Your task to perform on an android device: What is the average speed of a car? Image 0: 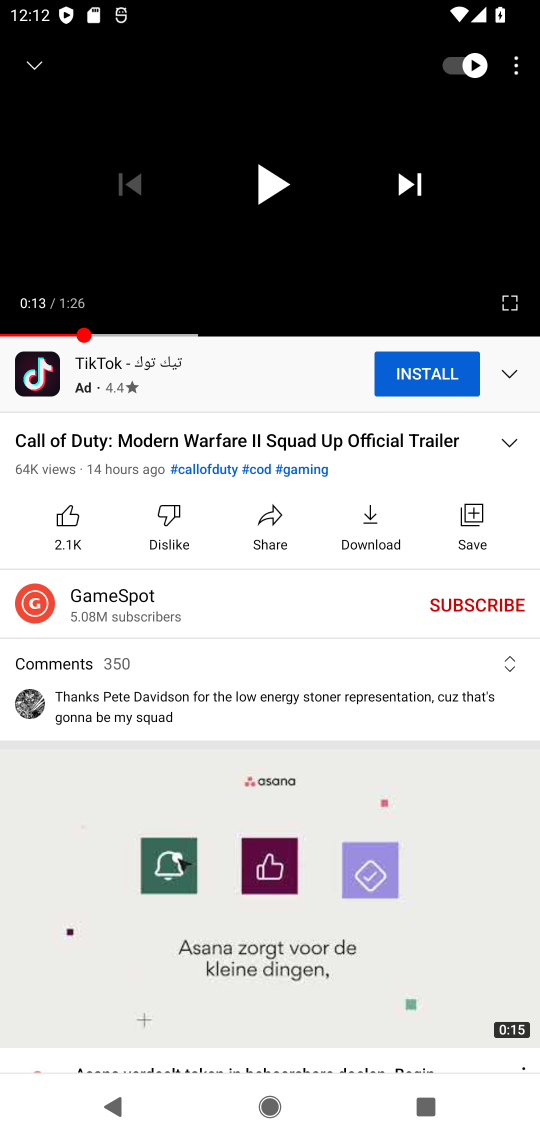
Step 0: press home button
Your task to perform on an android device: What is the average speed of a car? Image 1: 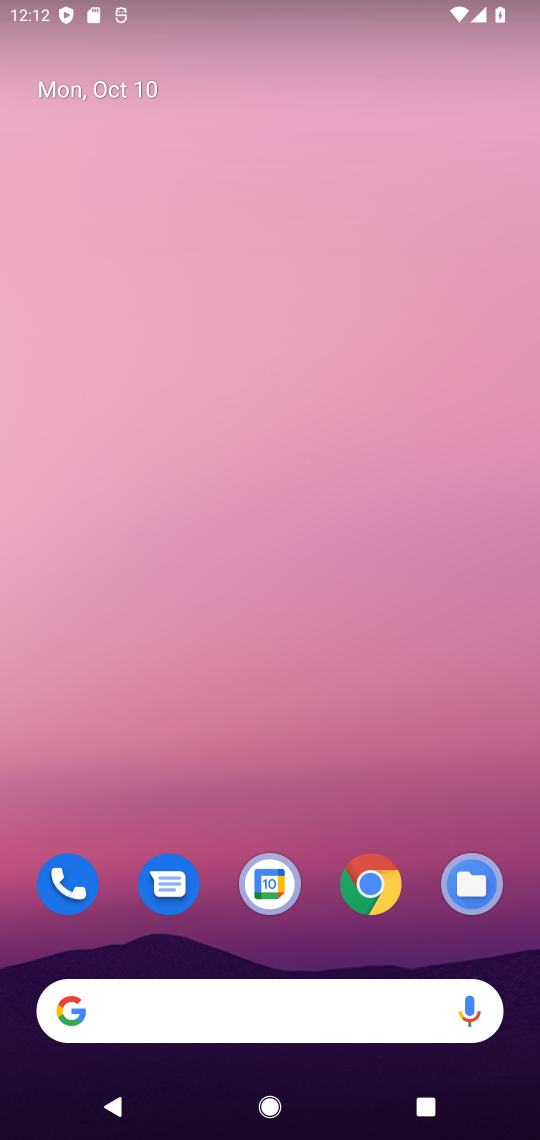
Step 1: click (382, 885)
Your task to perform on an android device: What is the average speed of a car? Image 2: 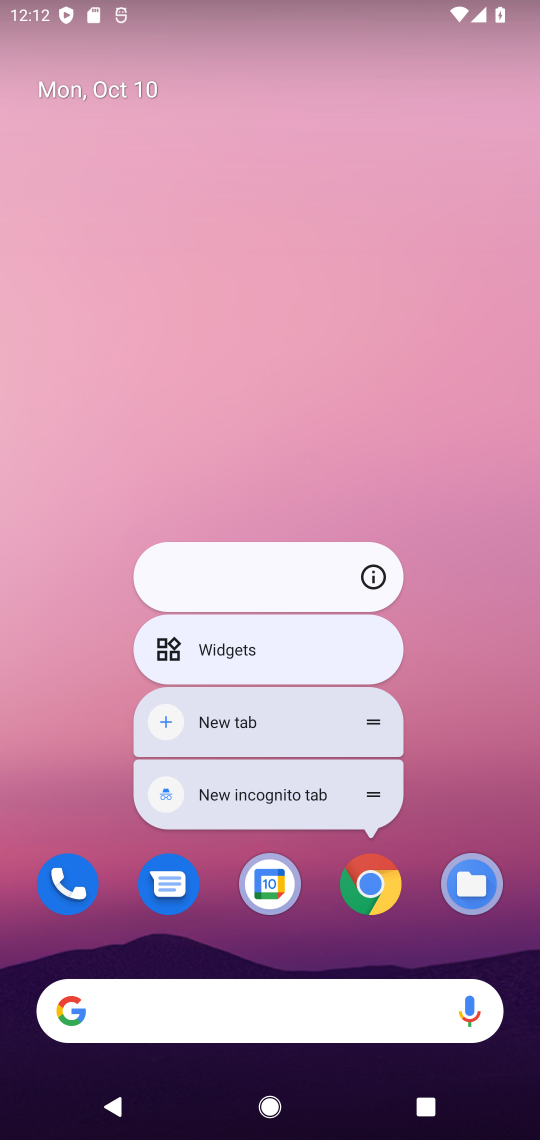
Step 2: click (381, 869)
Your task to perform on an android device: What is the average speed of a car? Image 3: 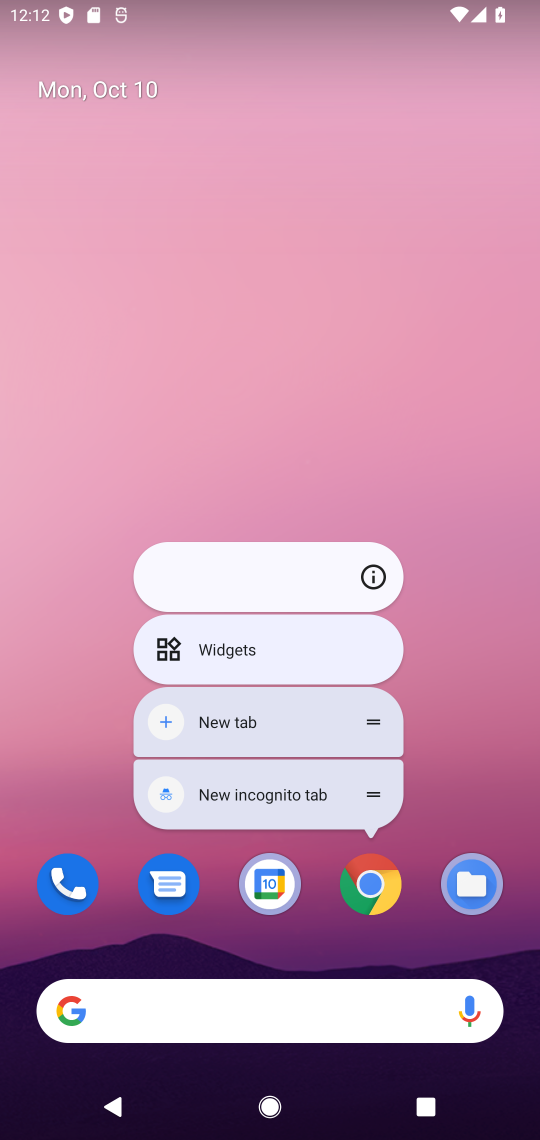
Step 3: click (369, 889)
Your task to perform on an android device: What is the average speed of a car? Image 4: 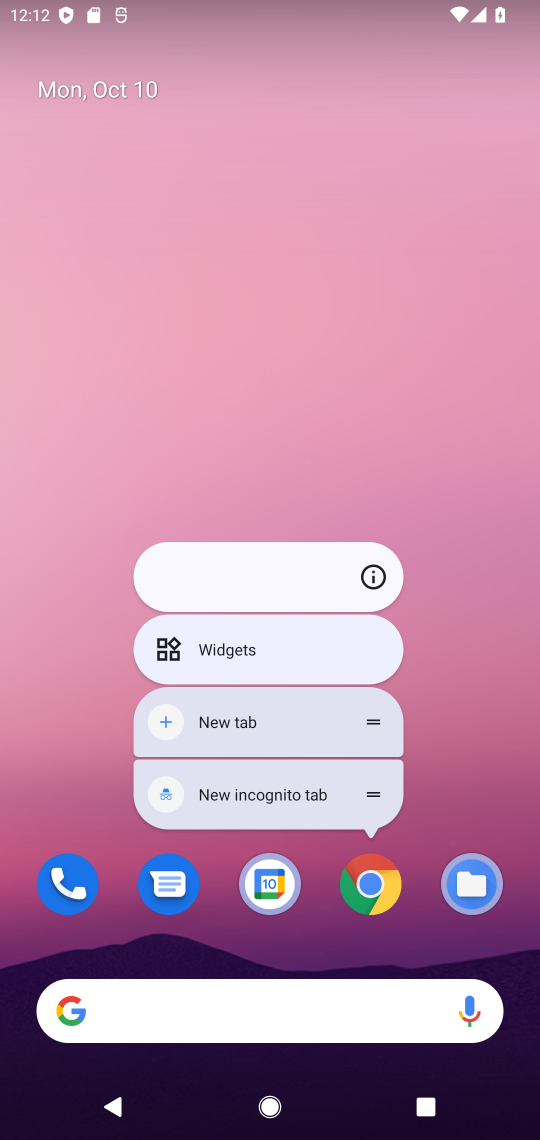
Step 4: click (369, 889)
Your task to perform on an android device: What is the average speed of a car? Image 5: 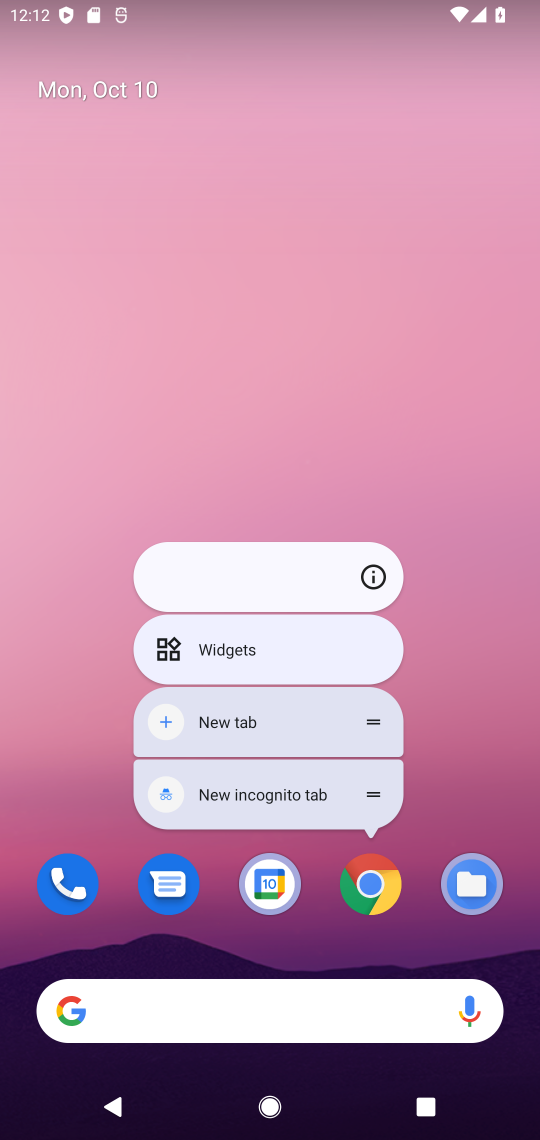
Step 5: click (374, 890)
Your task to perform on an android device: What is the average speed of a car? Image 6: 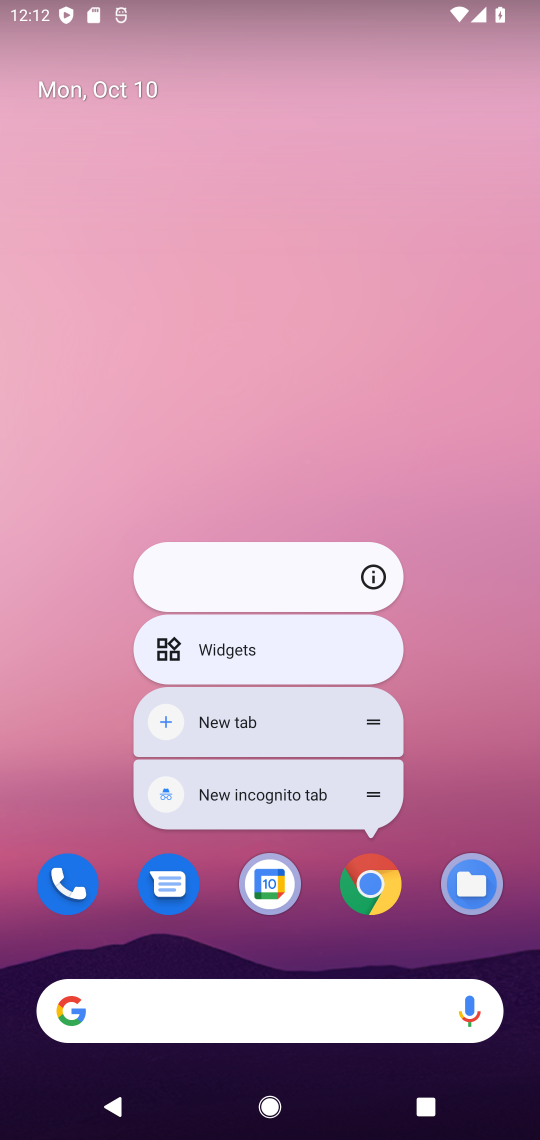
Step 6: click (386, 935)
Your task to perform on an android device: What is the average speed of a car? Image 7: 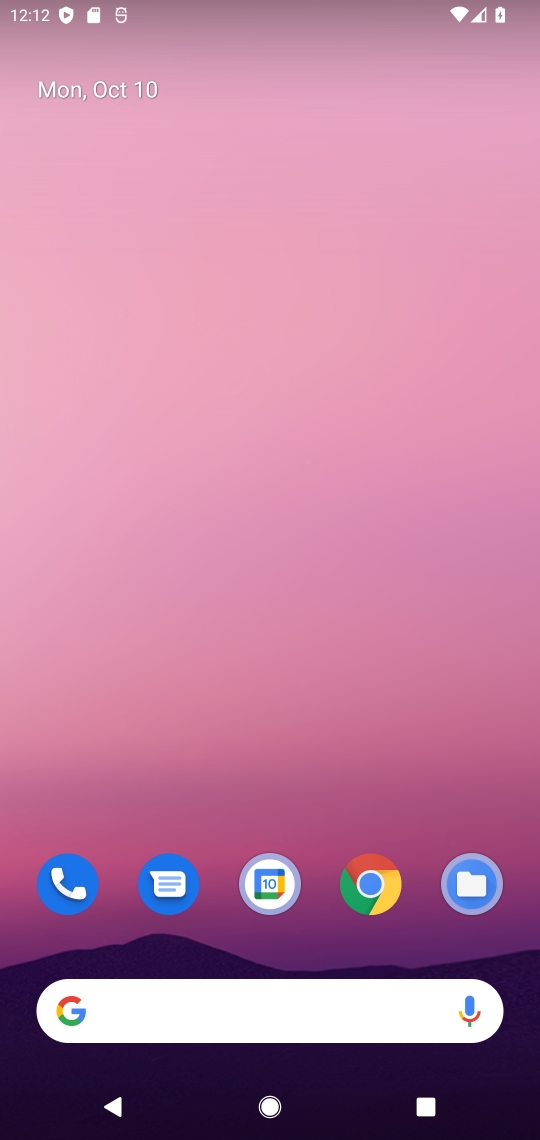
Step 7: click (363, 905)
Your task to perform on an android device: What is the average speed of a car? Image 8: 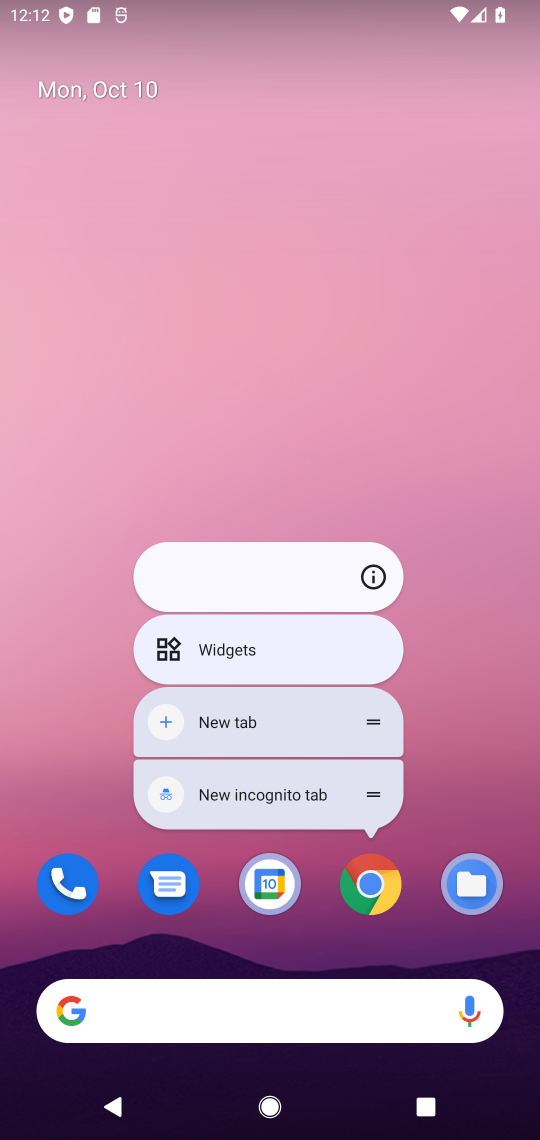
Step 8: click (363, 905)
Your task to perform on an android device: What is the average speed of a car? Image 9: 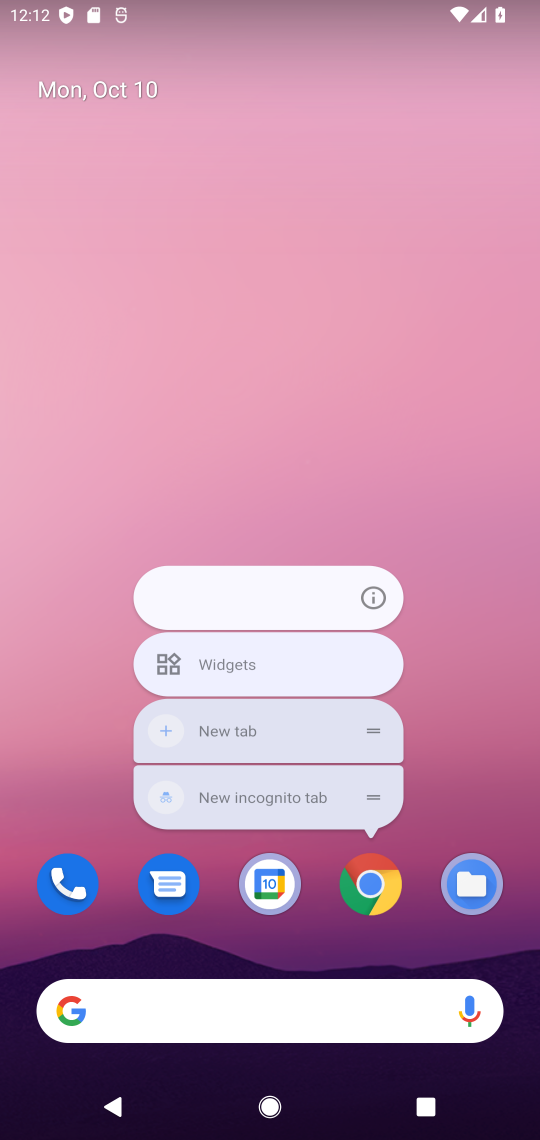
Step 9: click (345, 894)
Your task to perform on an android device: What is the average speed of a car? Image 10: 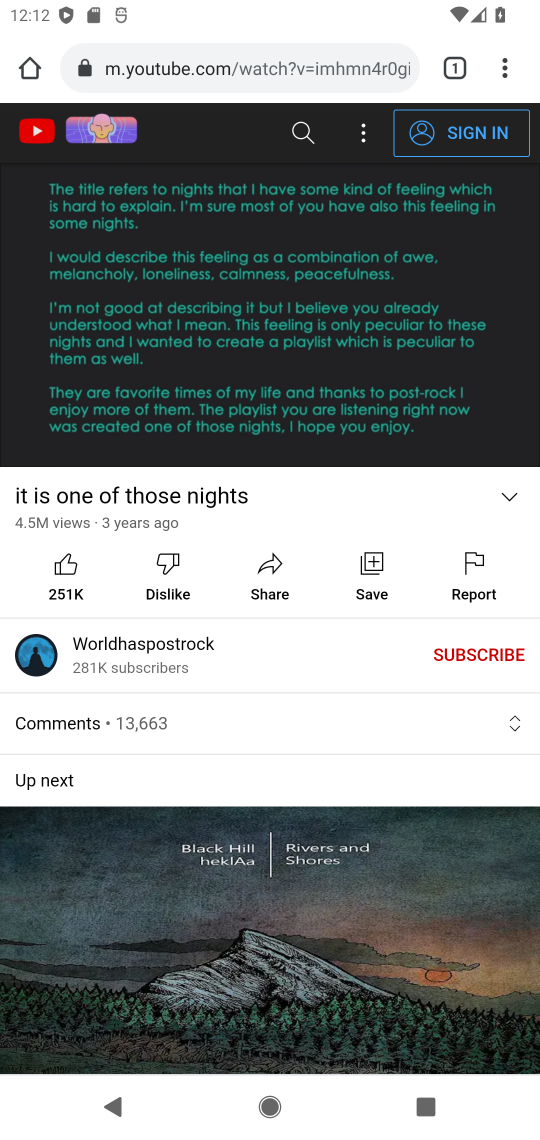
Step 10: click (273, 71)
Your task to perform on an android device: What is the average speed of a car? Image 11: 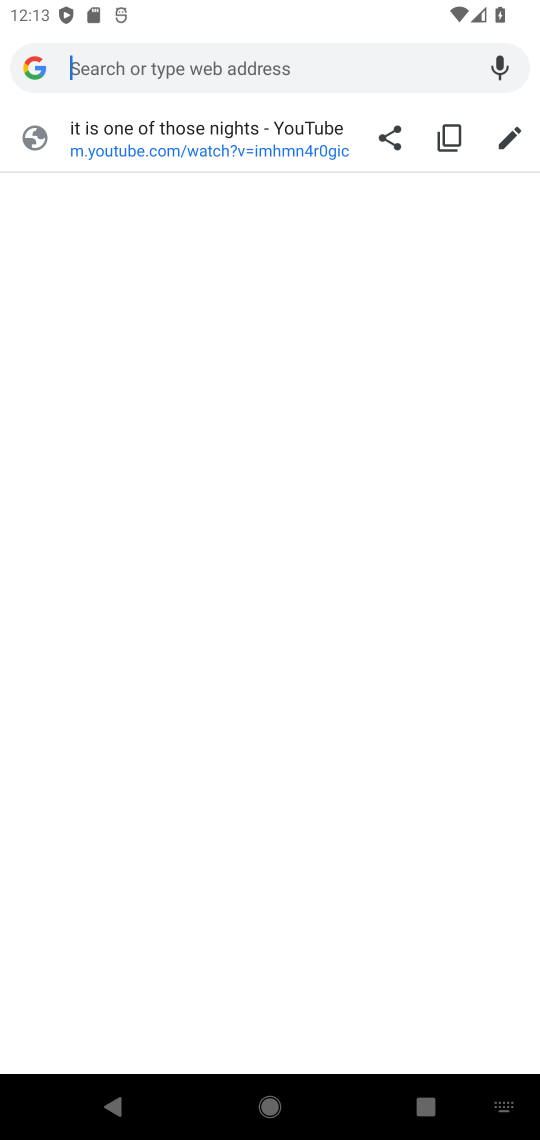
Step 11: type "average speed of a car"
Your task to perform on an android device: What is the average speed of a car? Image 12: 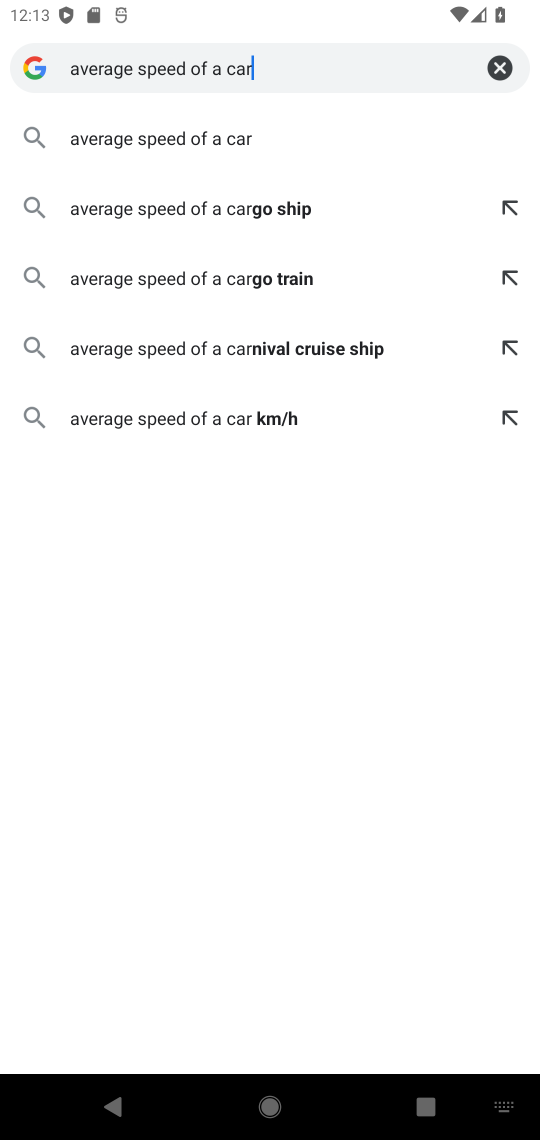
Step 12: press enter
Your task to perform on an android device: What is the average speed of a car? Image 13: 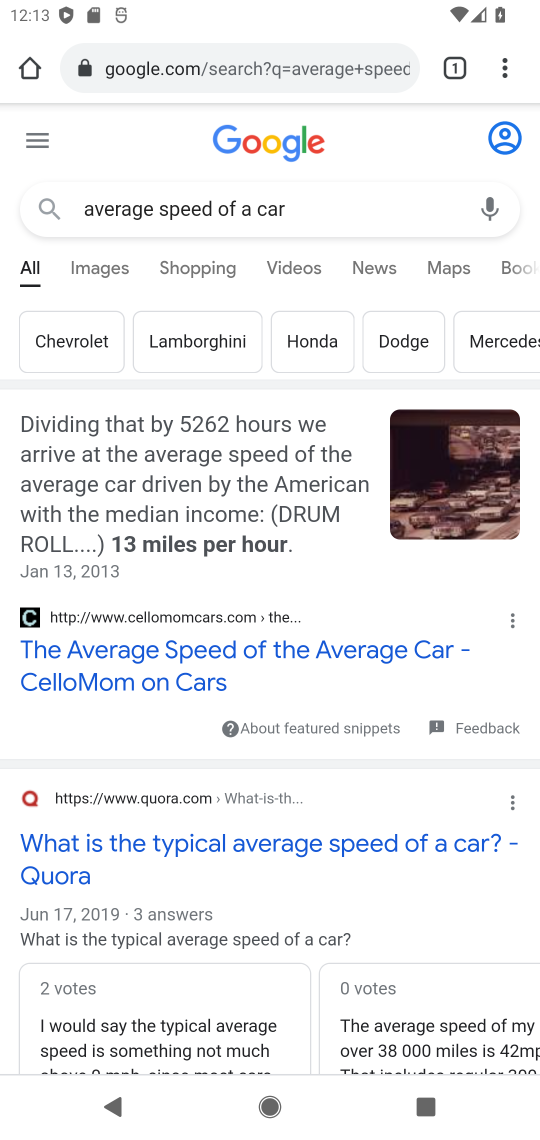
Step 13: drag from (237, 510) to (244, 397)
Your task to perform on an android device: What is the average speed of a car? Image 14: 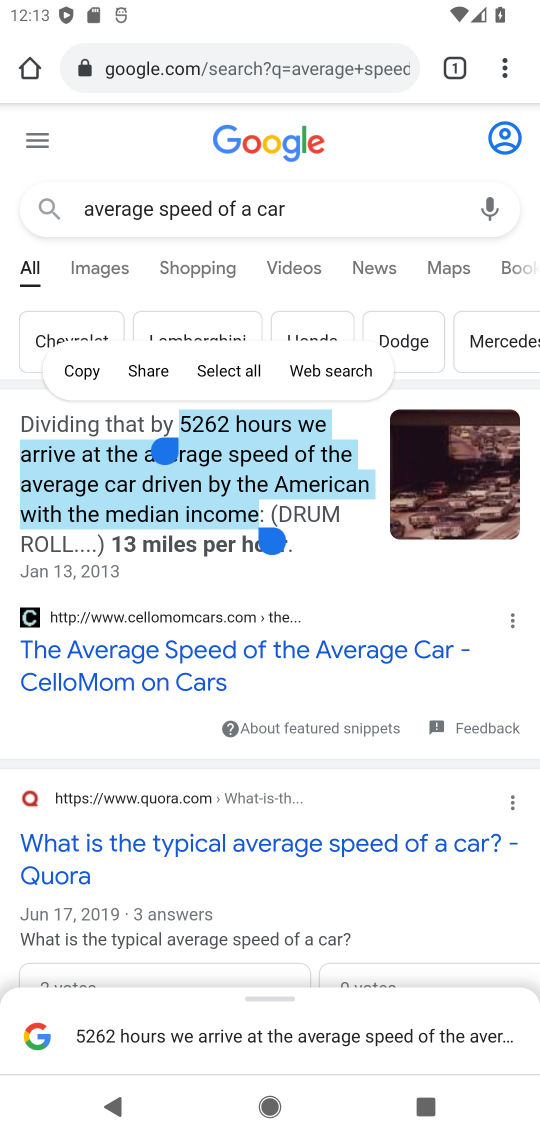
Step 14: click (302, 557)
Your task to perform on an android device: What is the average speed of a car? Image 15: 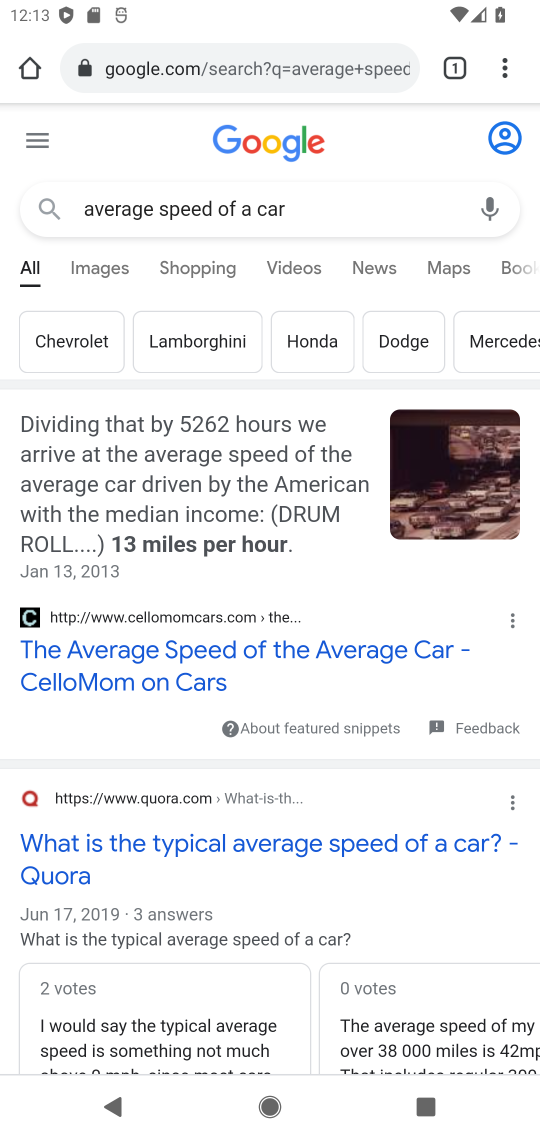
Step 15: task complete